Your task to perform on an android device: install app "Google News" Image 0: 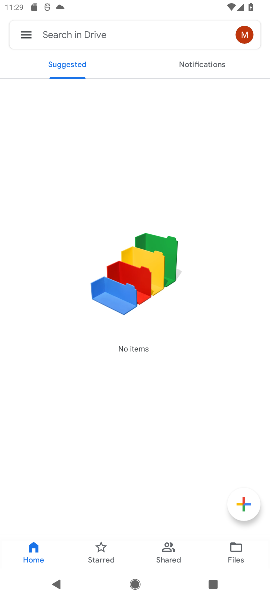
Step 0: press home button
Your task to perform on an android device: install app "Google News" Image 1: 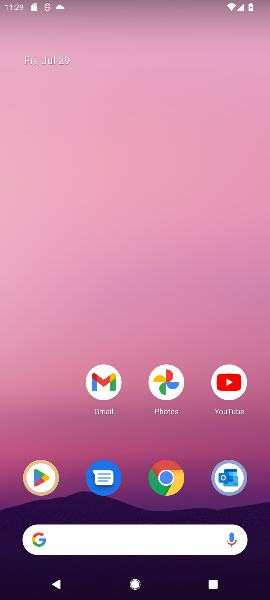
Step 1: click (39, 472)
Your task to perform on an android device: install app "Google News" Image 2: 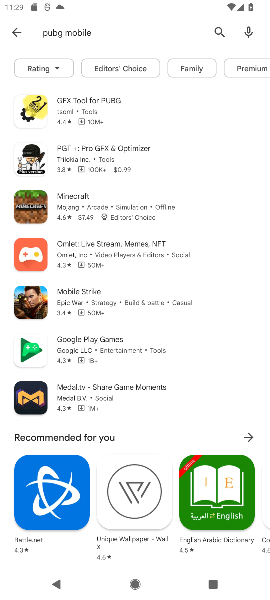
Step 2: click (14, 35)
Your task to perform on an android device: install app "Google News" Image 3: 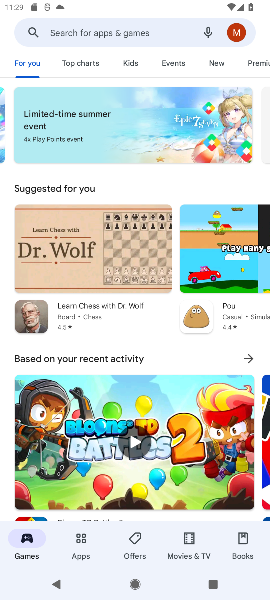
Step 3: click (76, 29)
Your task to perform on an android device: install app "Google News" Image 4: 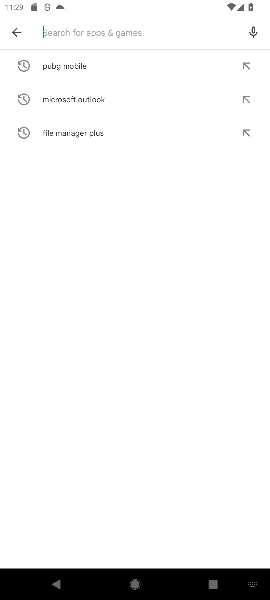
Step 4: type "Google News"
Your task to perform on an android device: install app "Google News" Image 5: 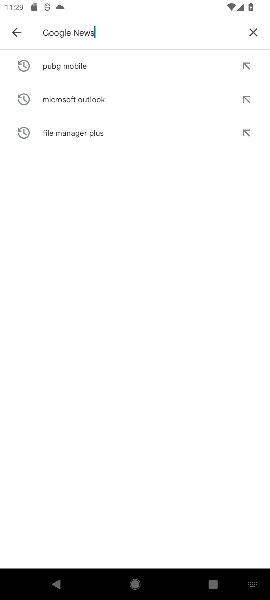
Step 5: type ""
Your task to perform on an android device: install app "Google News" Image 6: 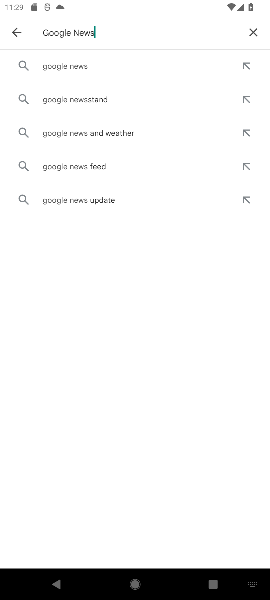
Step 6: click (71, 63)
Your task to perform on an android device: install app "Google News" Image 7: 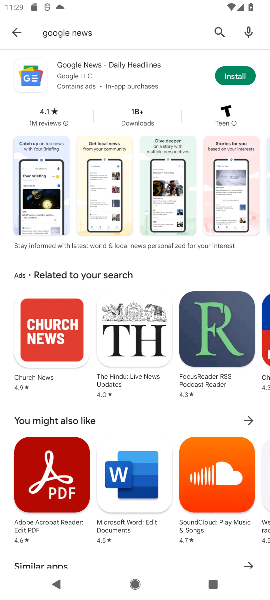
Step 7: click (235, 72)
Your task to perform on an android device: install app "Google News" Image 8: 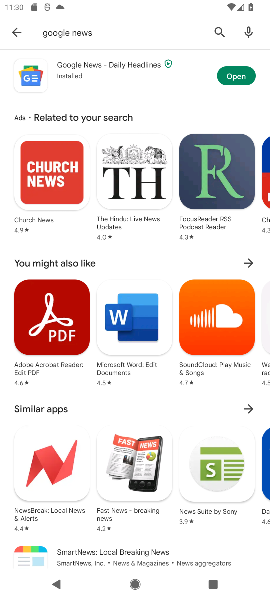
Step 8: task complete